Your task to perform on an android device: What's on my calendar tomorrow? Image 0: 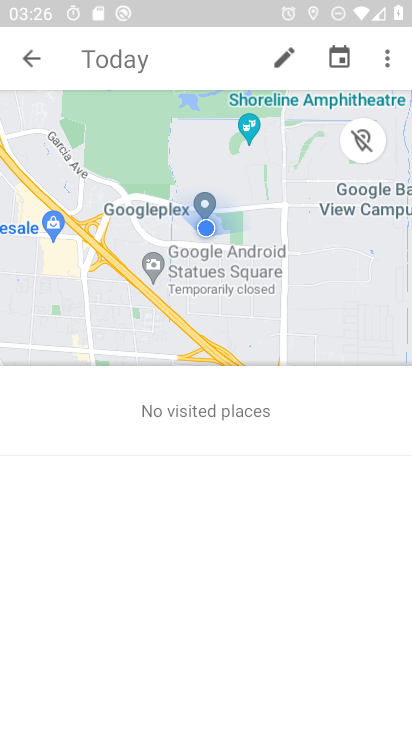
Step 0: press back button
Your task to perform on an android device: What's on my calendar tomorrow? Image 1: 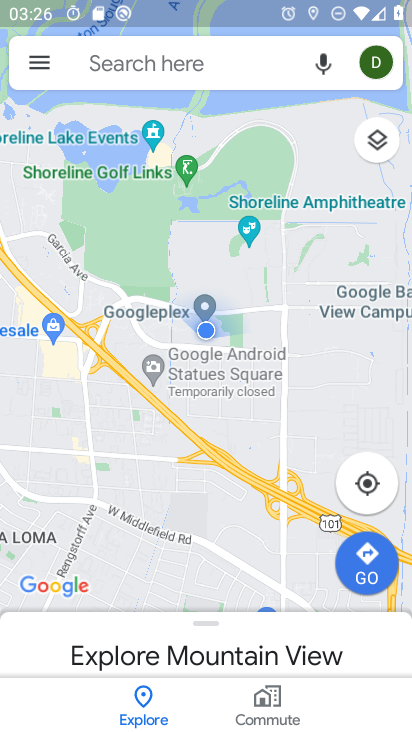
Step 1: press back button
Your task to perform on an android device: What's on my calendar tomorrow? Image 2: 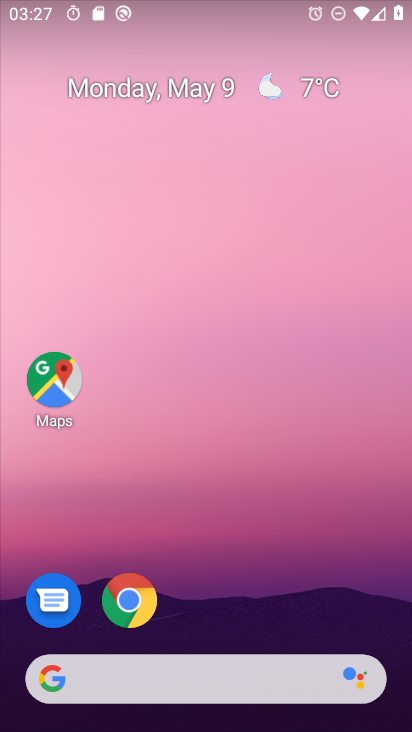
Step 2: drag from (196, 659) to (179, 177)
Your task to perform on an android device: What's on my calendar tomorrow? Image 3: 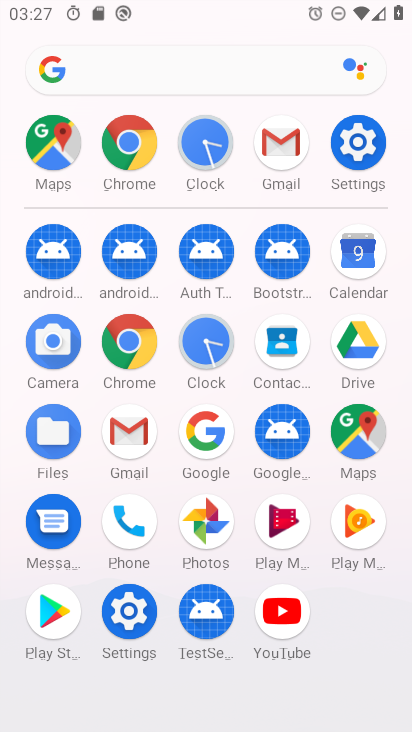
Step 3: click (366, 265)
Your task to perform on an android device: What's on my calendar tomorrow? Image 4: 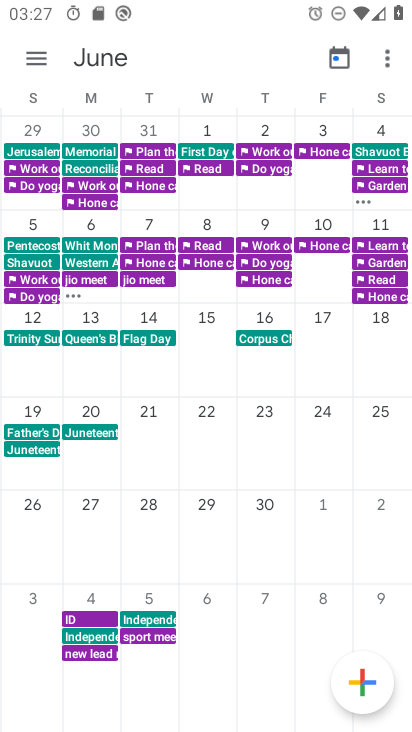
Step 4: task complete